Your task to perform on an android device: Open eBay Image 0: 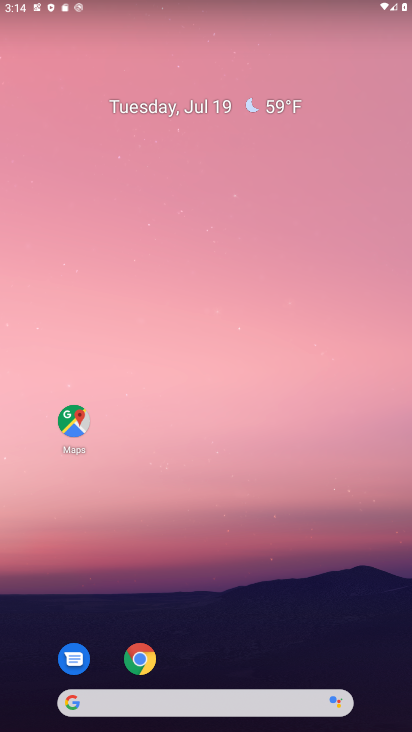
Step 0: click (143, 659)
Your task to perform on an android device: Open eBay Image 1: 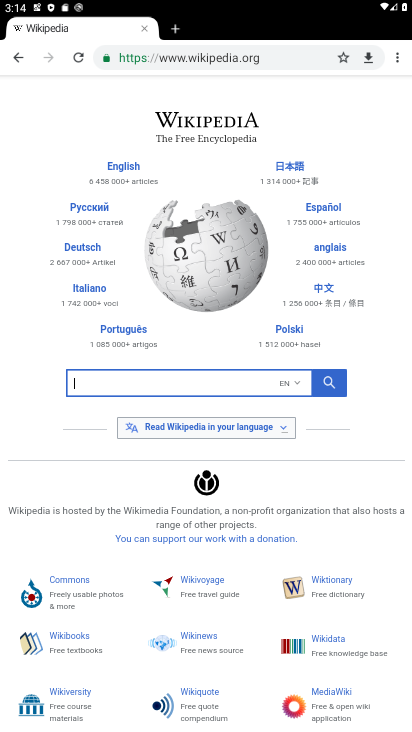
Step 1: click (292, 63)
Your task to perform on an android device: Open eBay Image 2: 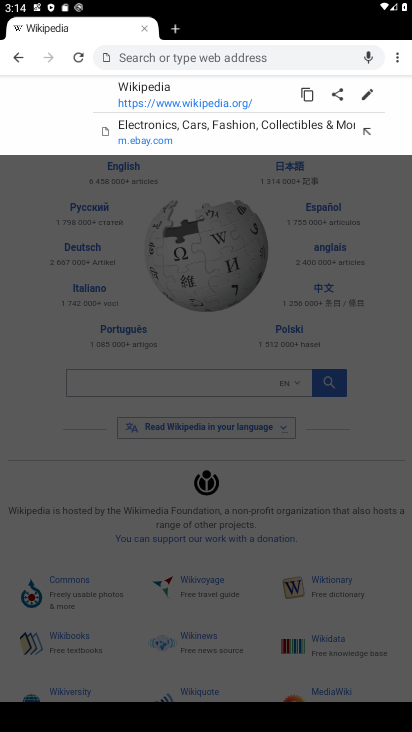
Step 2: type "eBay"
Your task to perform on an android device: Open eBay Image 3: 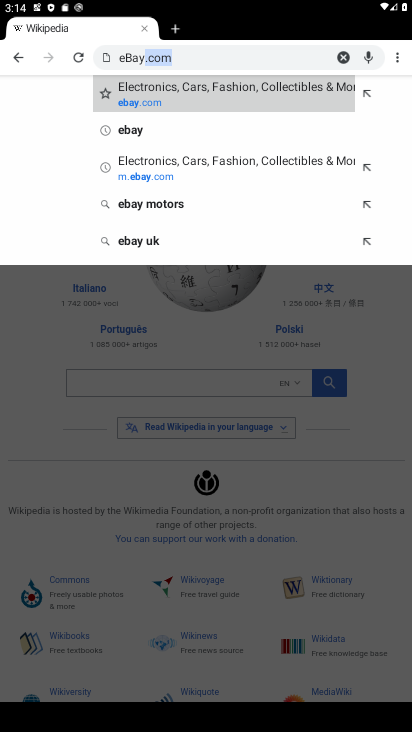
Step 3: click (223, 92)
Your task to perform on an android device: Open eBay Image 4: 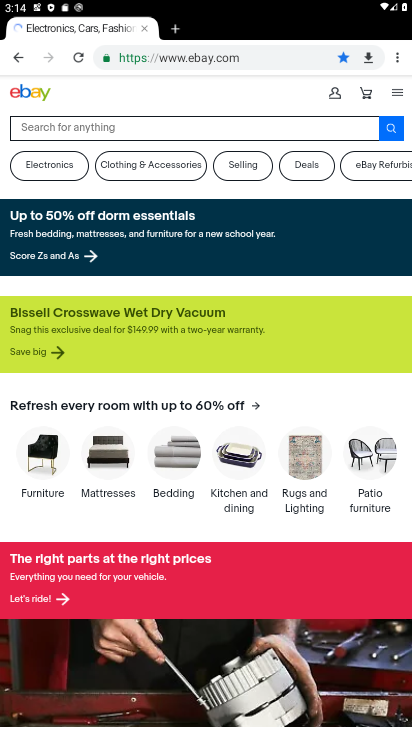
Step 4: task complete